Your task to perform on an android device: refresh tabs in the chrome app Image 0: 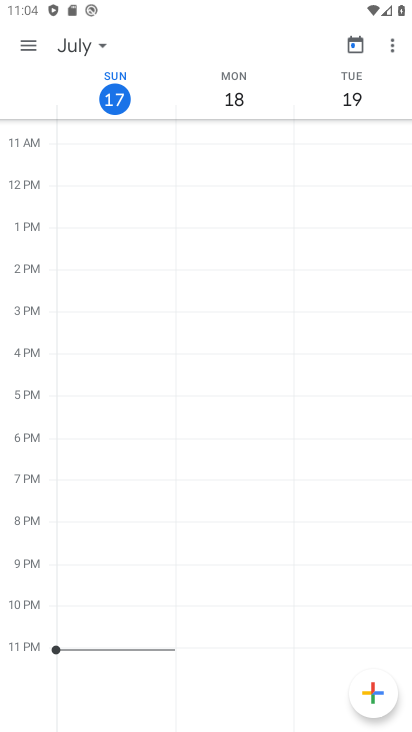
Step 0: press home button
Your task to perform on an android device: refresh tabs in the chrome app Image 1: 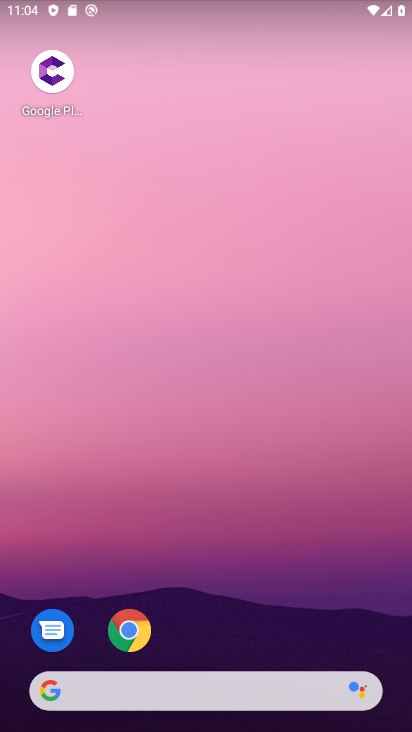
Step 1: drag from (197, 643) to (214, 29)
Your task to perform on an android device: refresh tabs in the chrome app Image 2: 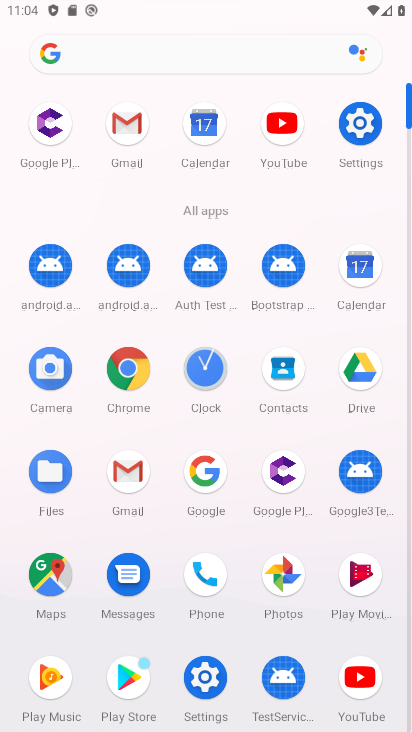
Step 2: click (129, 373)
Your task to perform on an android device: refresh tabs in the chrome app Image 3: 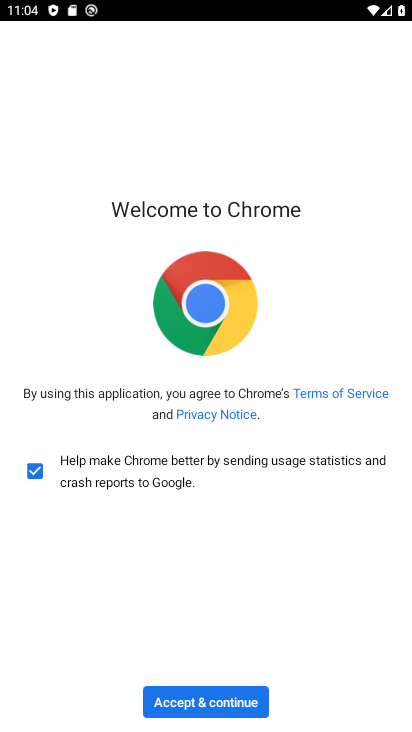
Step 3: click (240, 707)
Your task to perform on an android device: refresh tabs in the chrome app Image 4: 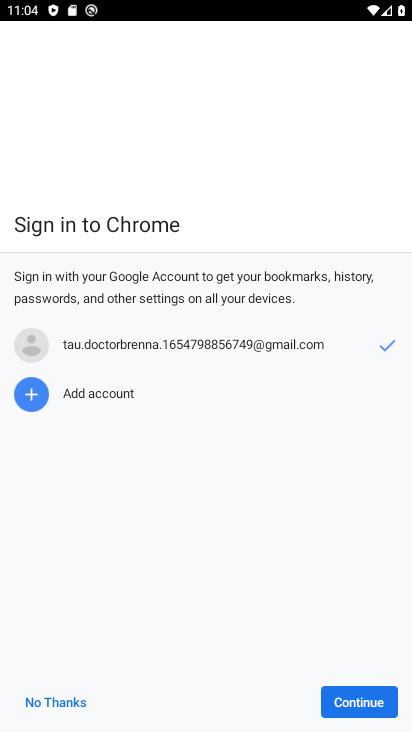
Step 4: click (360, 703)
Your task to perform on an android device: refresh tabs in the chrome app Image 5: 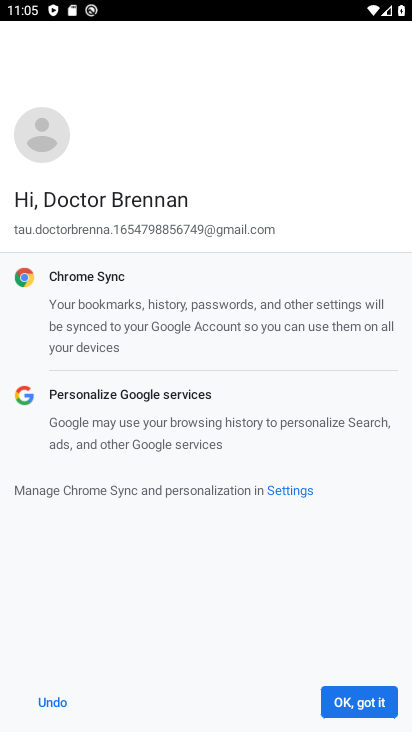
Step 5: click (359, 700)
Your task to perform on an android device: refresh tabs in the chrome app Image 6: 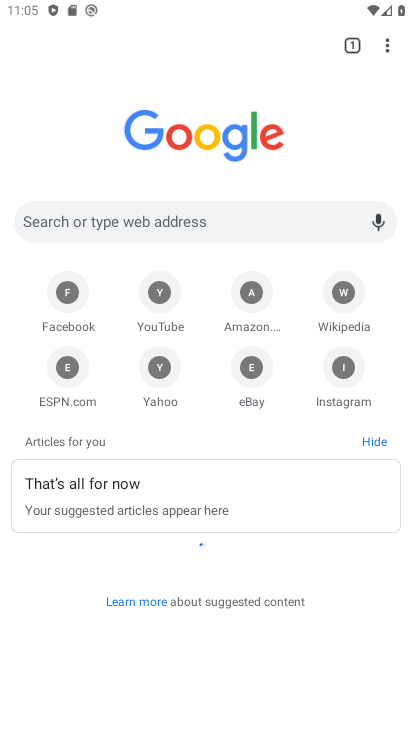
Step 6: click (390, 49)
Your task to perform on an android device: refresh tabs in the chrome app Image 7: 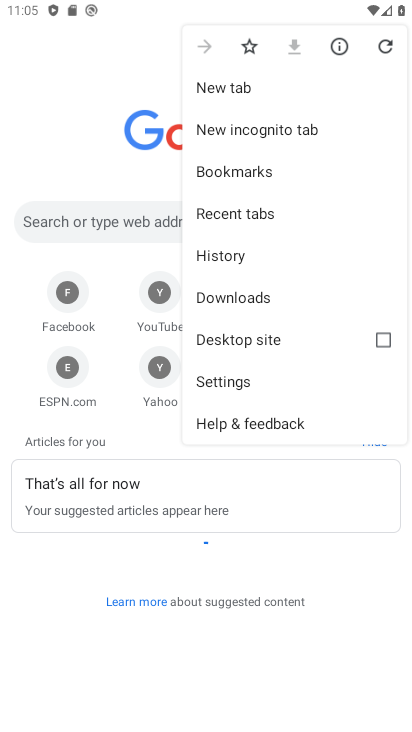
Step 7: click (391, 44)
Your task to perform on an android device: refresh tabs in the chrome app Image 8: 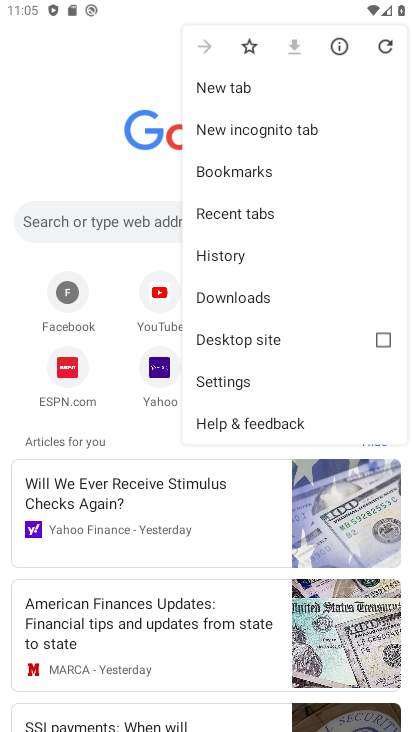
Step 8: click (382, 42)
Your task to perform on an android device: refresh tabs in the chrome app Image 9: 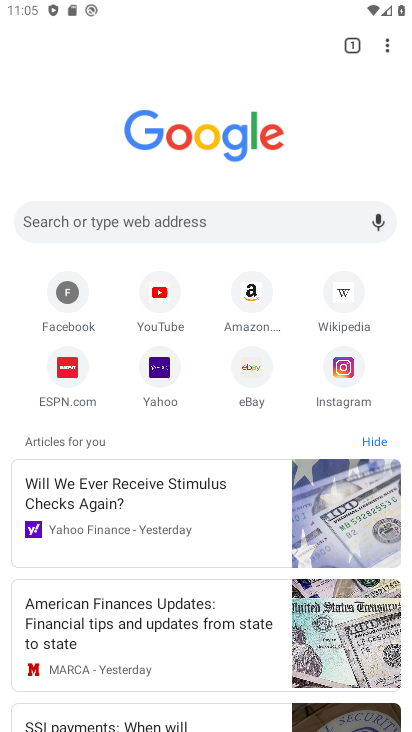
Step 9: task complete